Your task to perform on an android device: Find coffee shops on Maps Image 0: 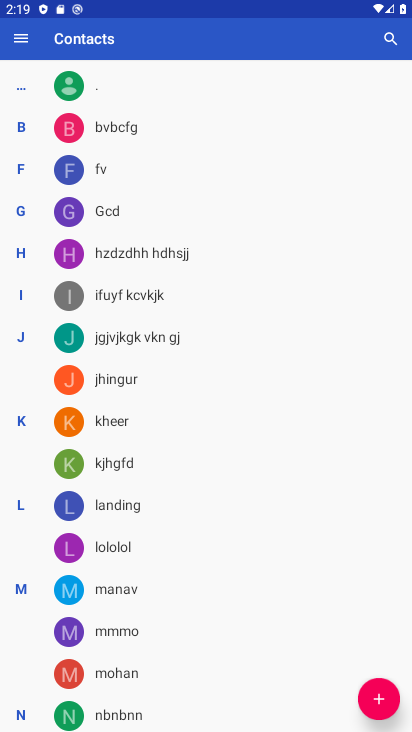
Step 0: press home button
Your task to perform on an android device: Find coffee shops on Maps Image 1: 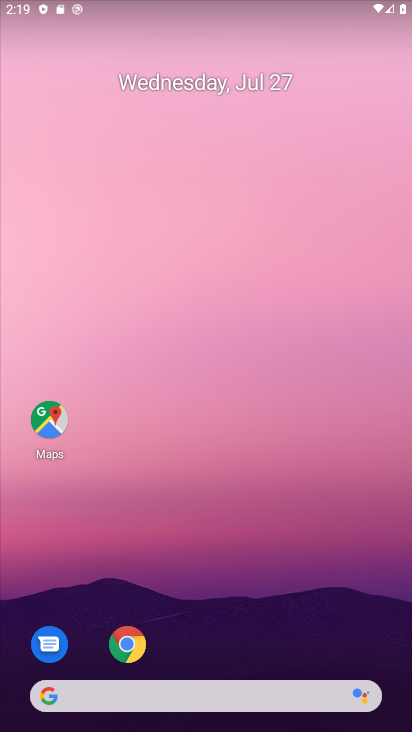
Step 1: drag from (291, 629) to (251, 140)
Your task to perform on an android device: Find coffee shops on Maps Image 2: 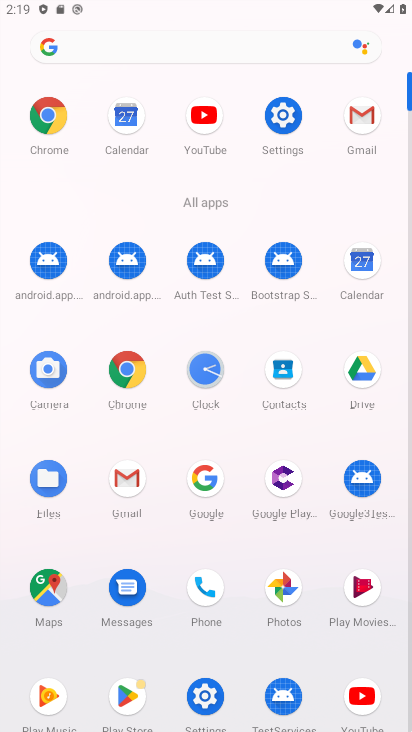
Step 2: click (41, 598)
Your task to perform on an android device: Find coffee shops on Maps Image 3: 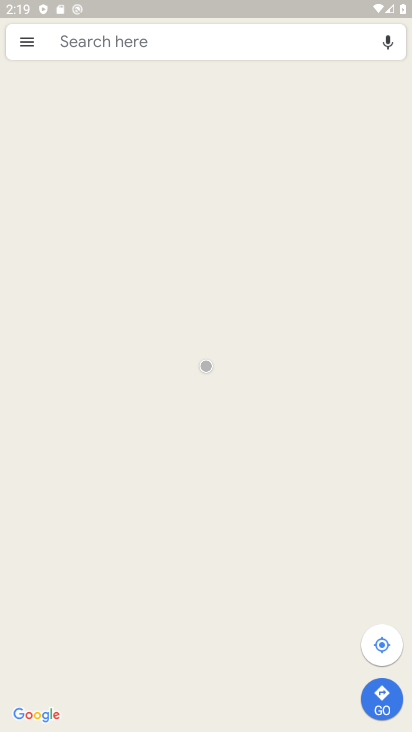
Step 3: click (248, 34)
Your task to perform on an android device: Find coffee shops on Maps Image 4: 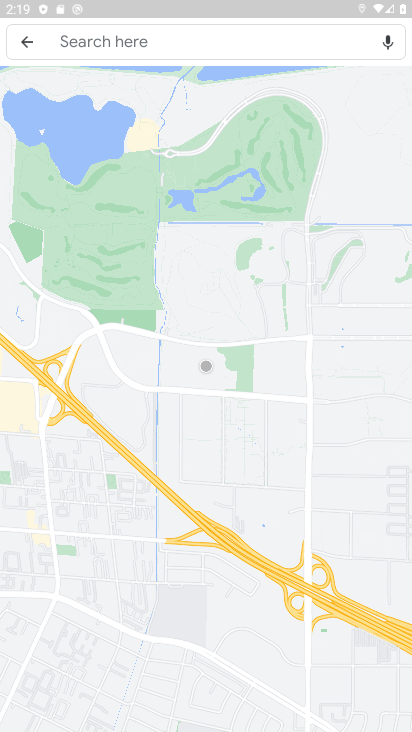
Step 4: click (184, 45)
Your task to perform on an android device: Find coffee shops on Maps Image 5: 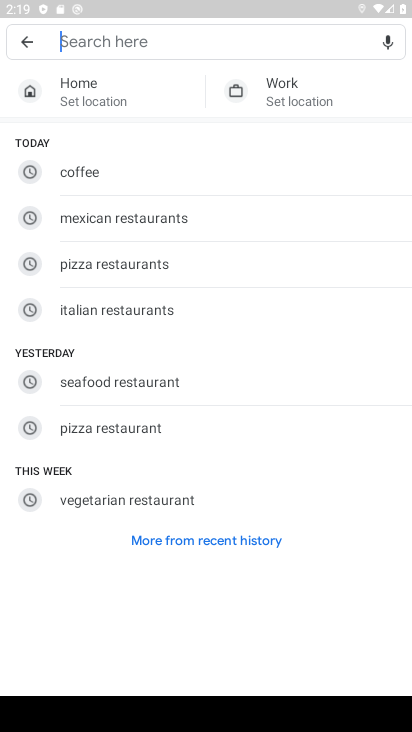
Step 5: type "coffee shops"
Your task to perform on an android device: Find coffee shops on Maps Image 6: 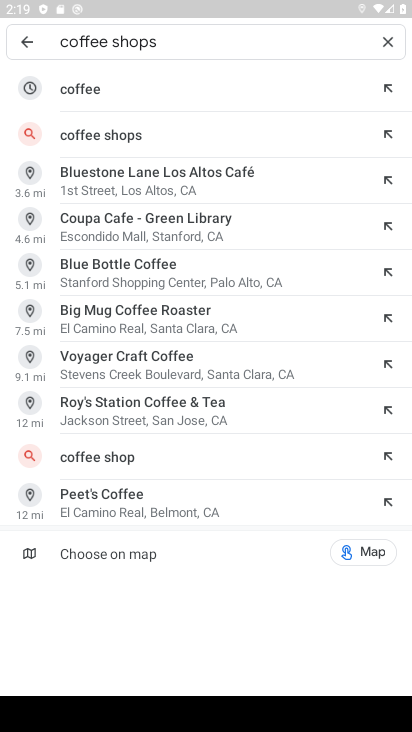
Step 6: click (155, 120)
Your task to perform on an android device: Find coffee shops on Maps Image 7: 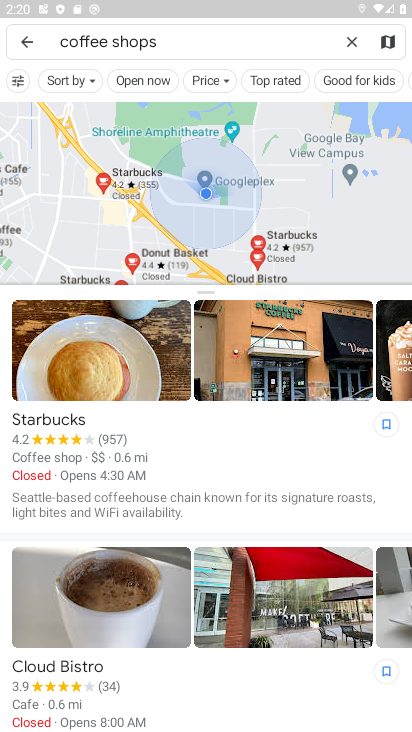
Step 7: task complete